Your task to perform on an android device: Show me recent news Image 0: 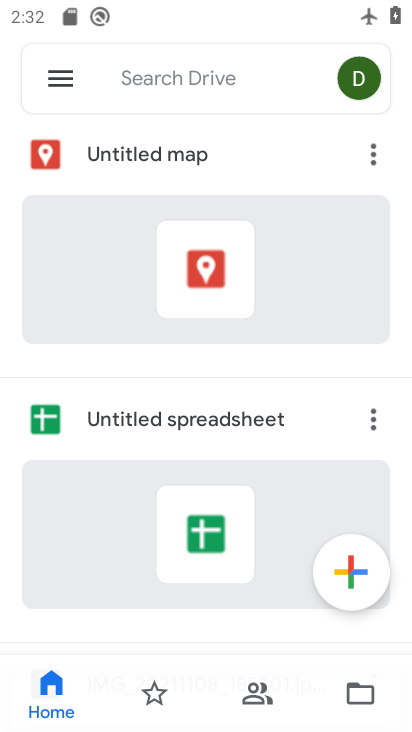
Step 0: press home button
Your task to perform on an android device: Show me recent news Image 1: 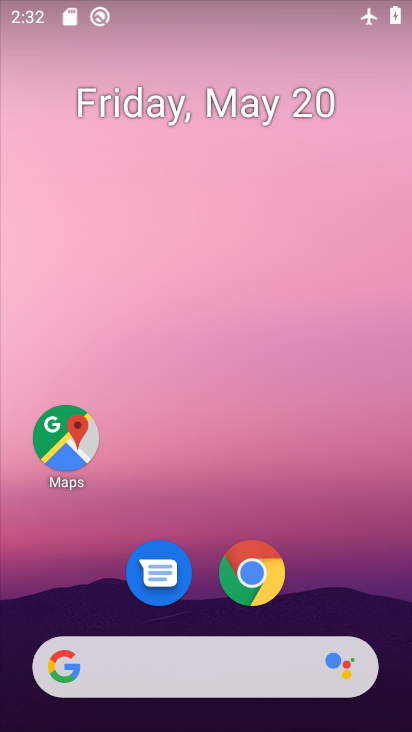
Step 1: drag from (204, 617) to (217, 159)
Your task to perform on an android device: Show me recent news Image 2: 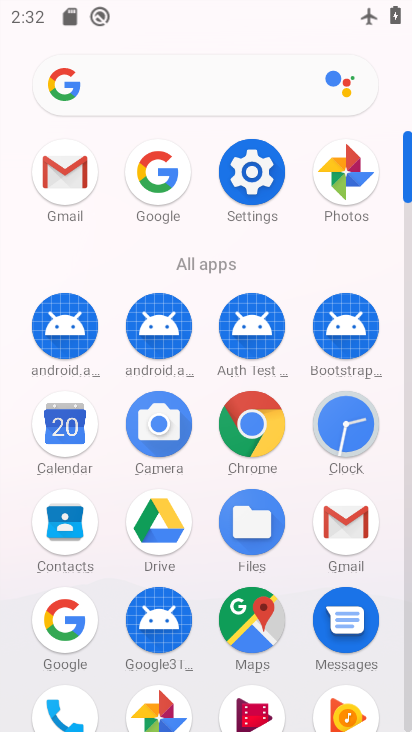
Step 2: click (216, 178)
Your task to perform on an android device: Show me recent news Image 3: 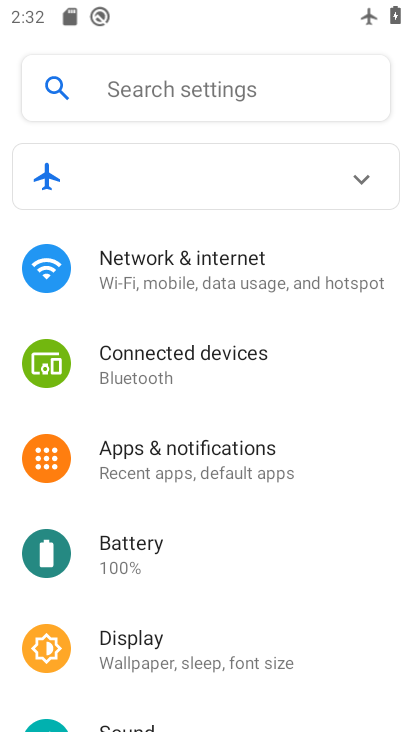
Step 3: press home button
Your task to perform on an android device: Show me recent news Image 4: 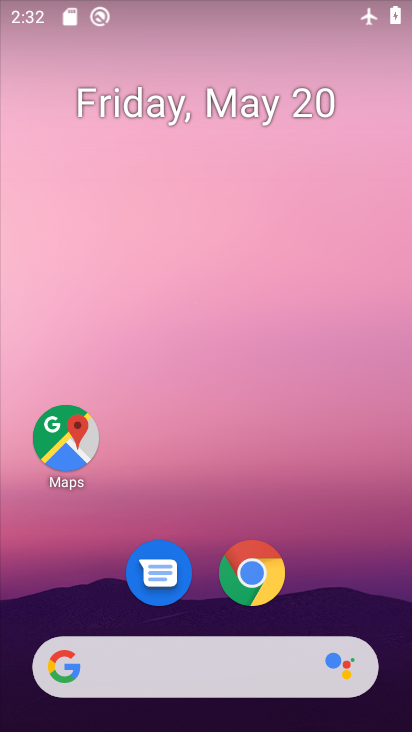
Step 4: drag from (201, 614) to (213, 154)
Your task to perform on an android device: Show me recent news Image 5: 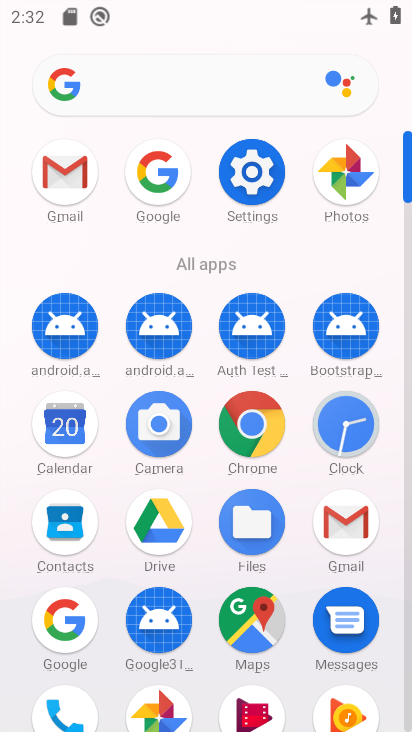
Step 5: click (172, 188)
Your task to perform on an android device: Show me recent news Image 6: 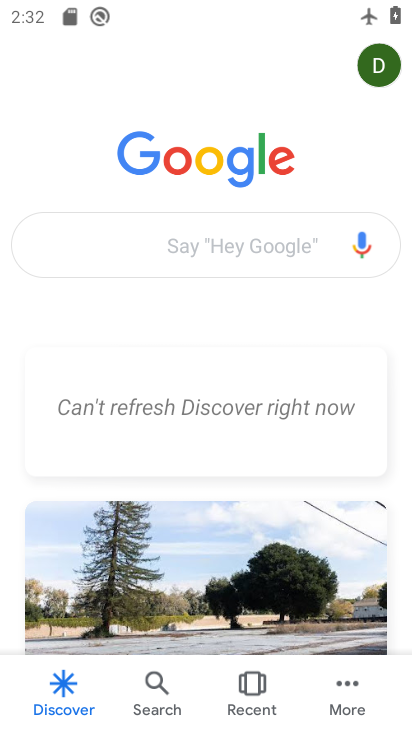
Step 6: click (186, 225)
Your task to perform on an android device: Show me recent news Image 7: 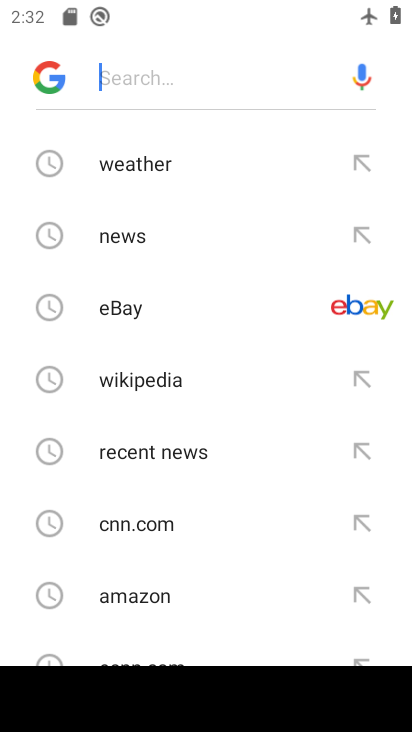
Step 7: click (150, 230)
Your task to perform on an android device: Show me recent news Image 8: 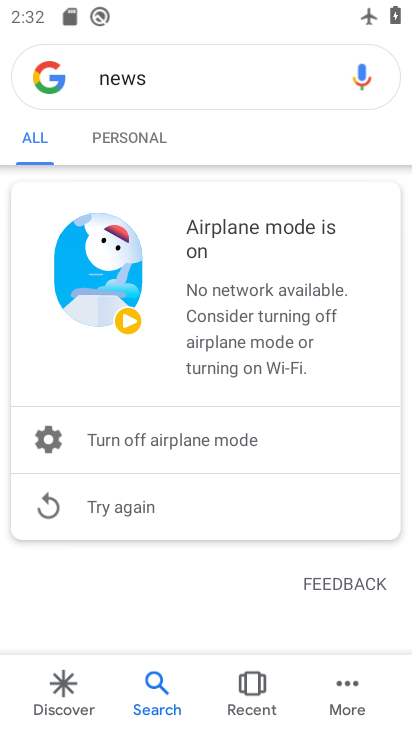
Step 8: task complete